Your task to perform on an android device: Add "razer blade" to the cart on ebay.com, then select checkout. Image 0: 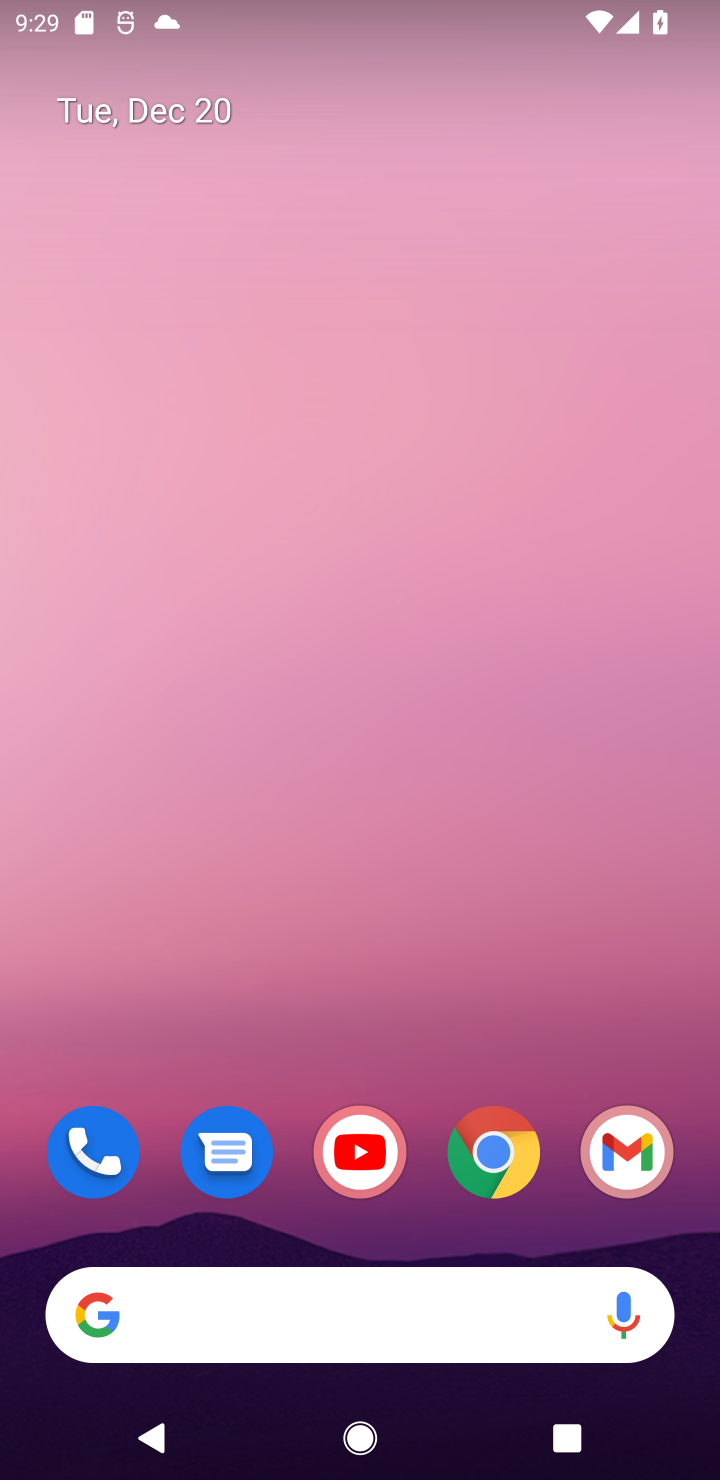
Step 0: click (468, 1193)
Your task to perform on an android device: Add "razer blade" to the cart on ebay.com, then select checkout. Image 1: 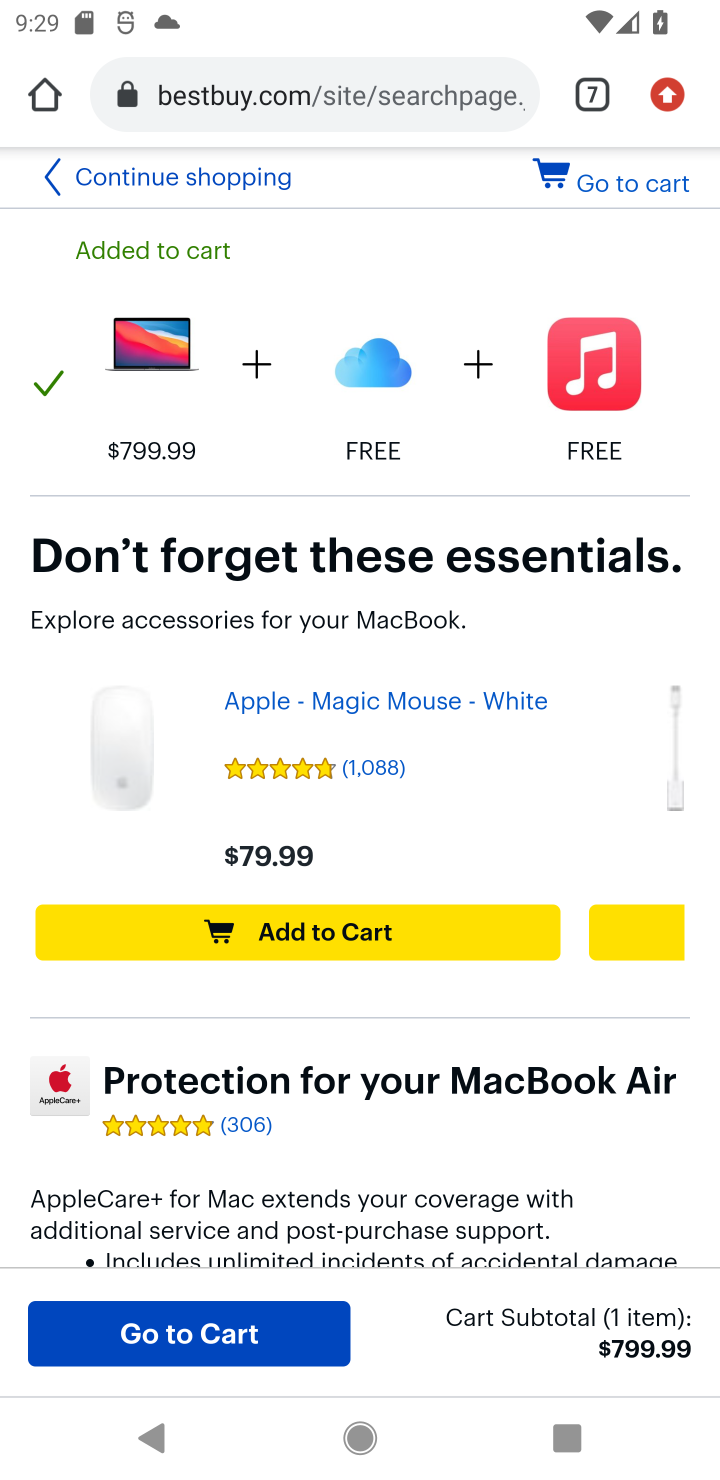
Step 1: click (593, 93)
Your task to perform on an android device: Add "razer blade" to the cart on ebay.com, then select checkout. Image 2: 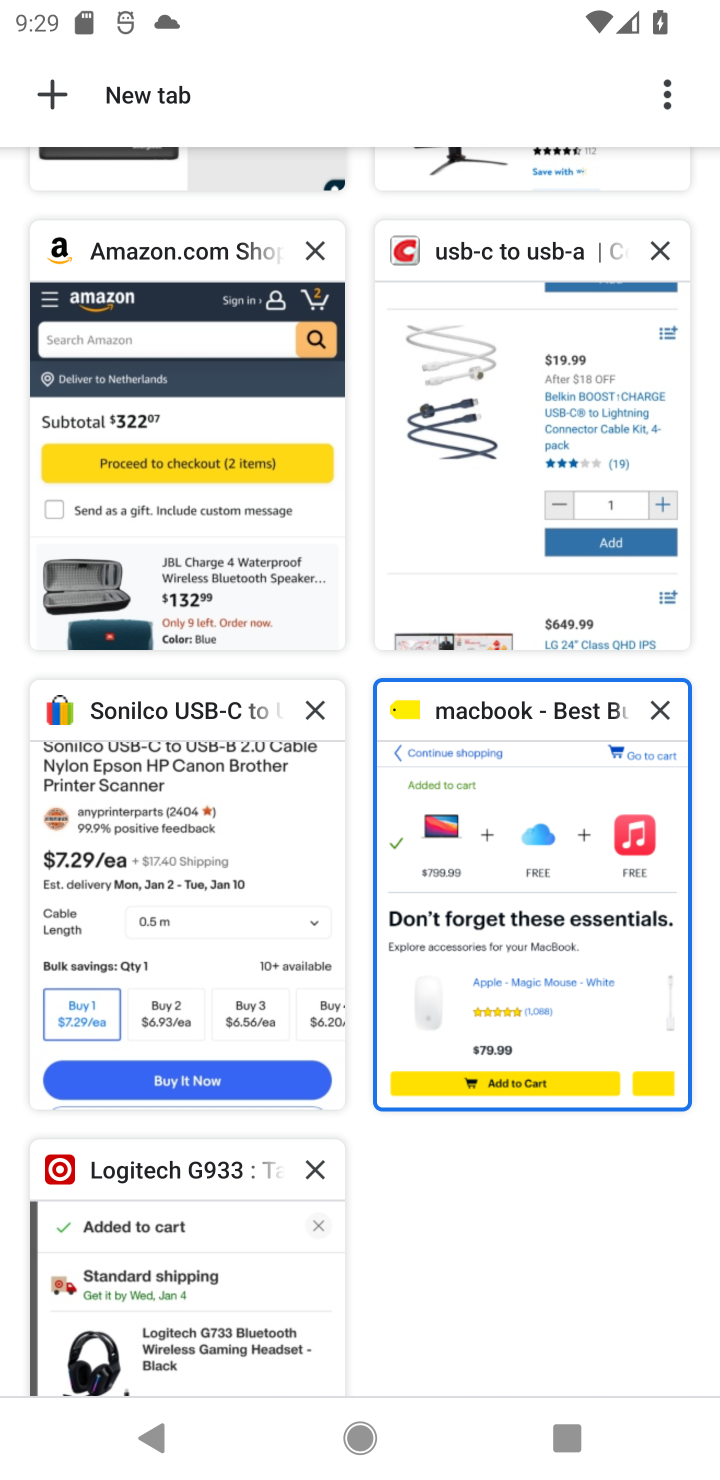
Step 2: click (151, 909)
Your task to perform on an android device: Add "razer blade" to the cart on ebay.com, then select checkout. Image 3: 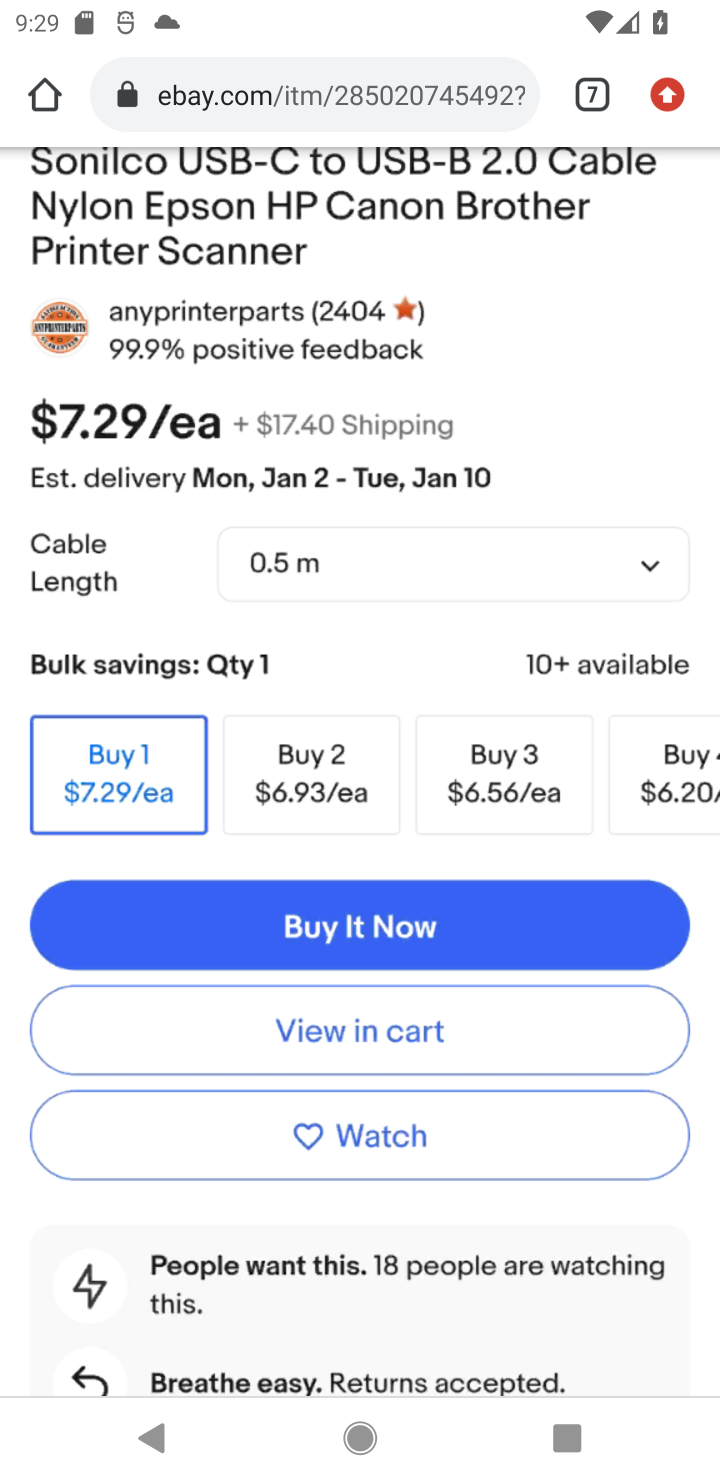
Step 3: drag from (437, 316) to (324, 1117)
Your task to perform on an android device: Add "razer blade" to the cart on ebay.com, then select checkout. Image 4: 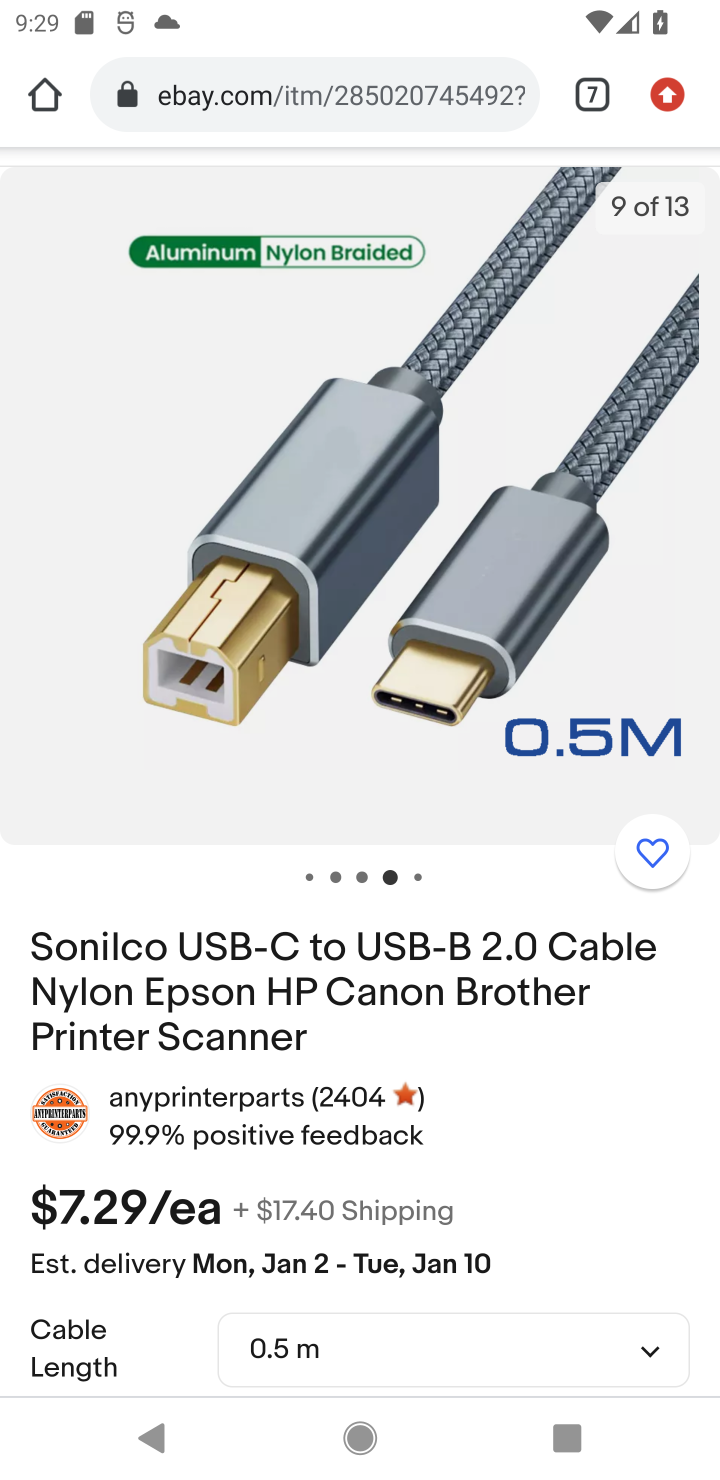
Step 4: drag from (519, 434) to (497, 826)
Your task to perform on an android device: Add "razer blade" to the cart on ebay.com, then select checkout. Image 5: 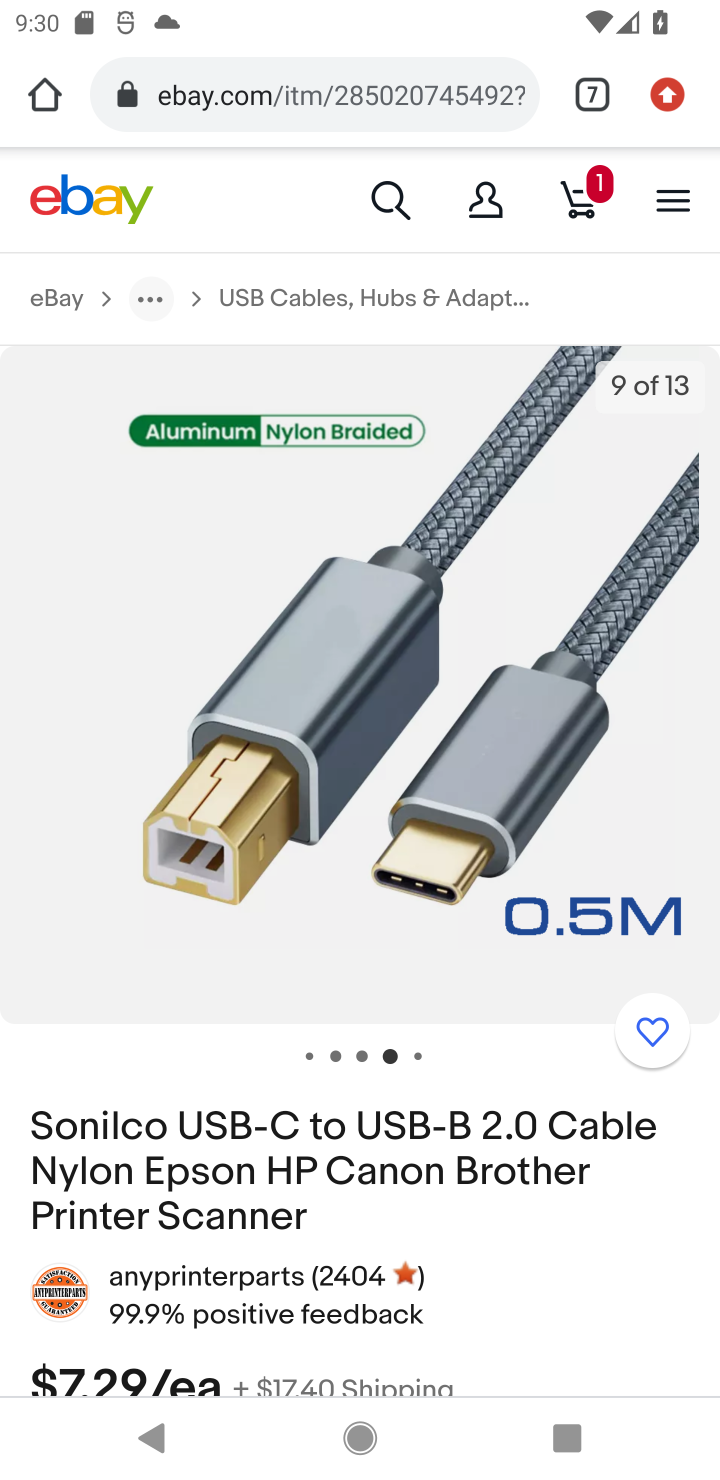
Step 5: click (392, 194)
Your task to perform on an android device: Add "razer blade" to the cart on ebay.com, then select checkout. Image 6: 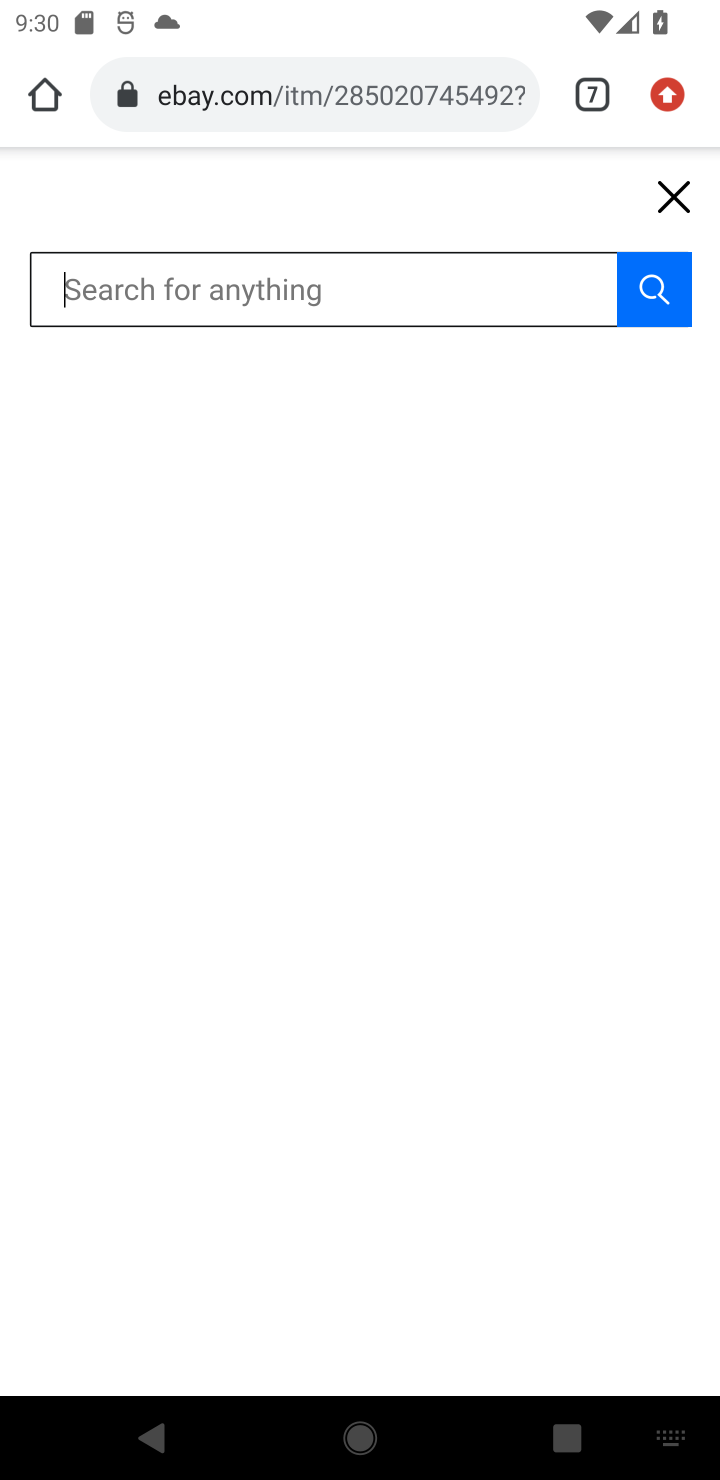
Step 6: type "razer blade"
Your task to perform on an android device: Add "razer blade" to the cart on ebay.com, then select checkout. Image 7: 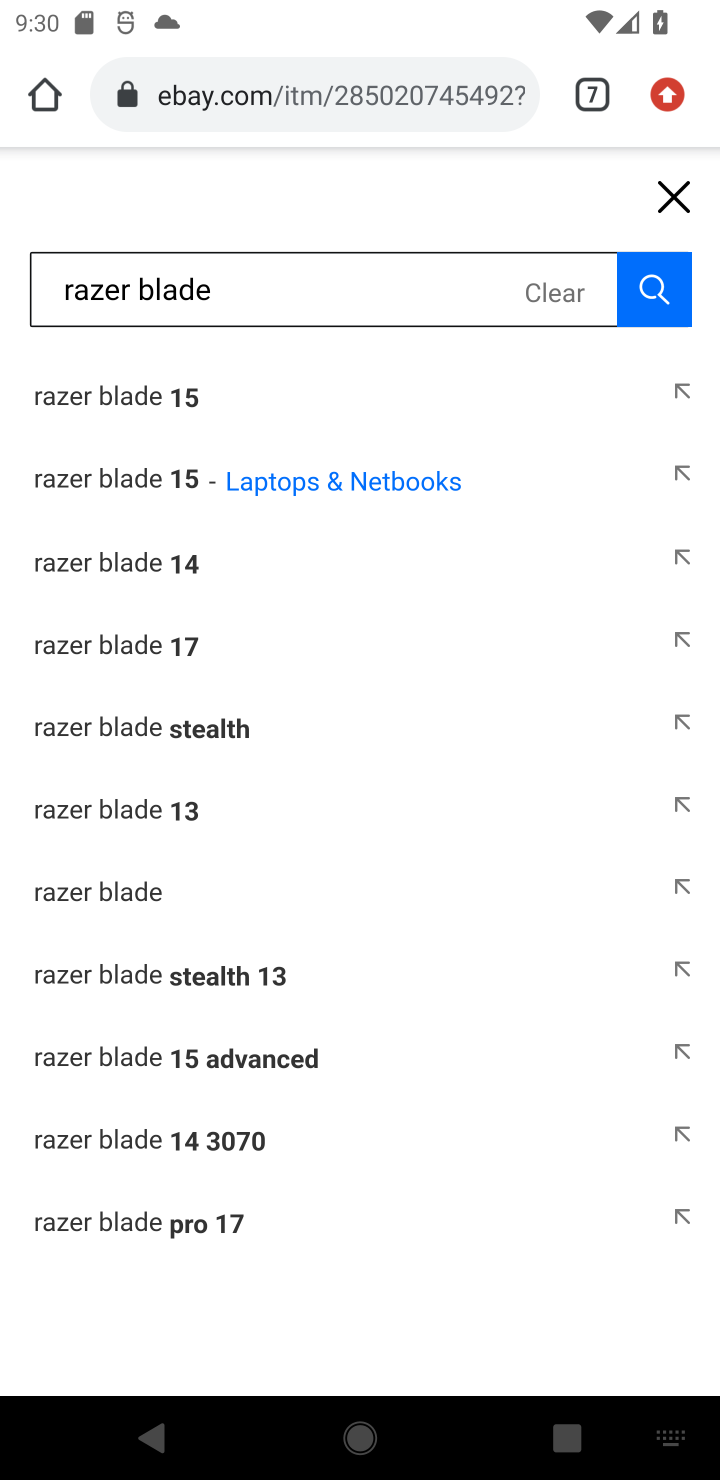
Step 7: click (171, 487)
Your task to perform on an android device: Add "razer blade" to the cart on ebay.com, then select checkout. Image 8: 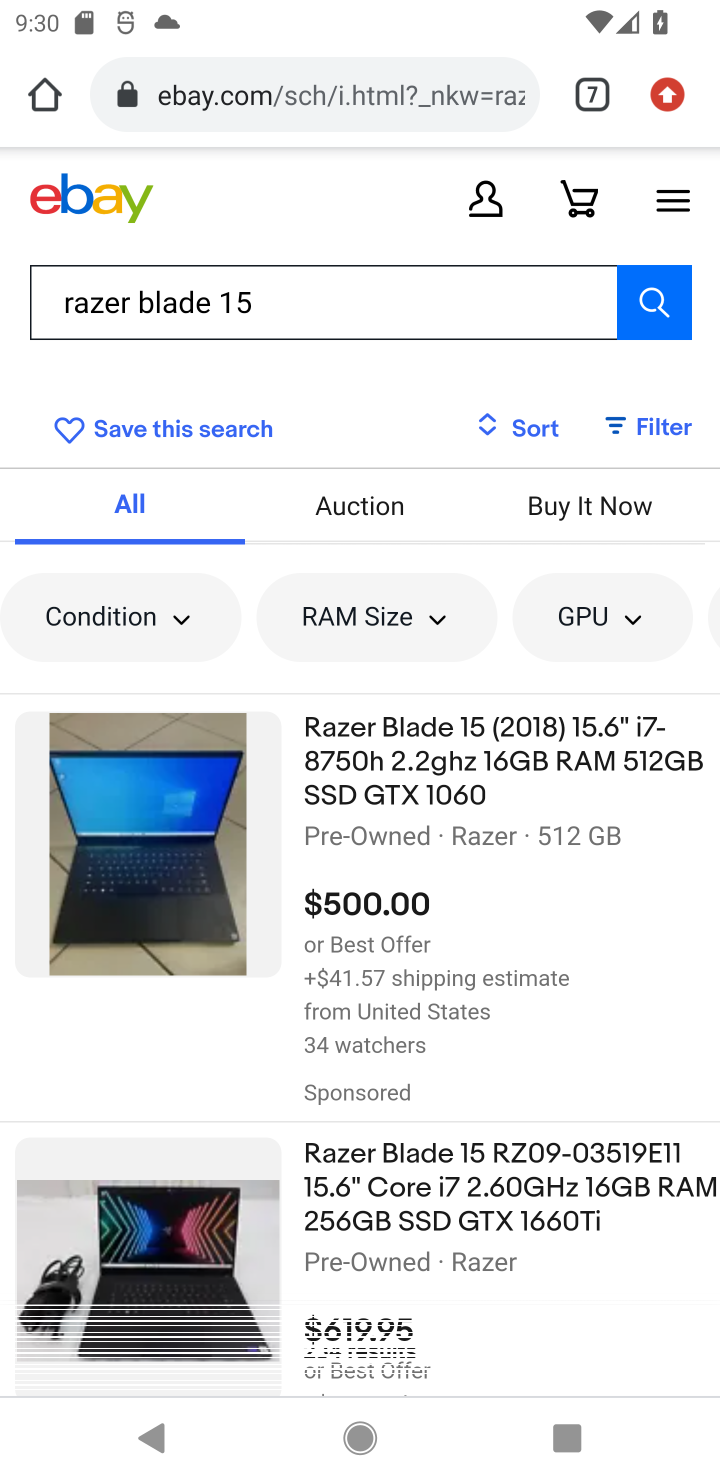
Step 8: click (424, 774)
Your task to perform on an android device: Add "razer blade" to the cart on ebay.com, then select checkout. Image 9: 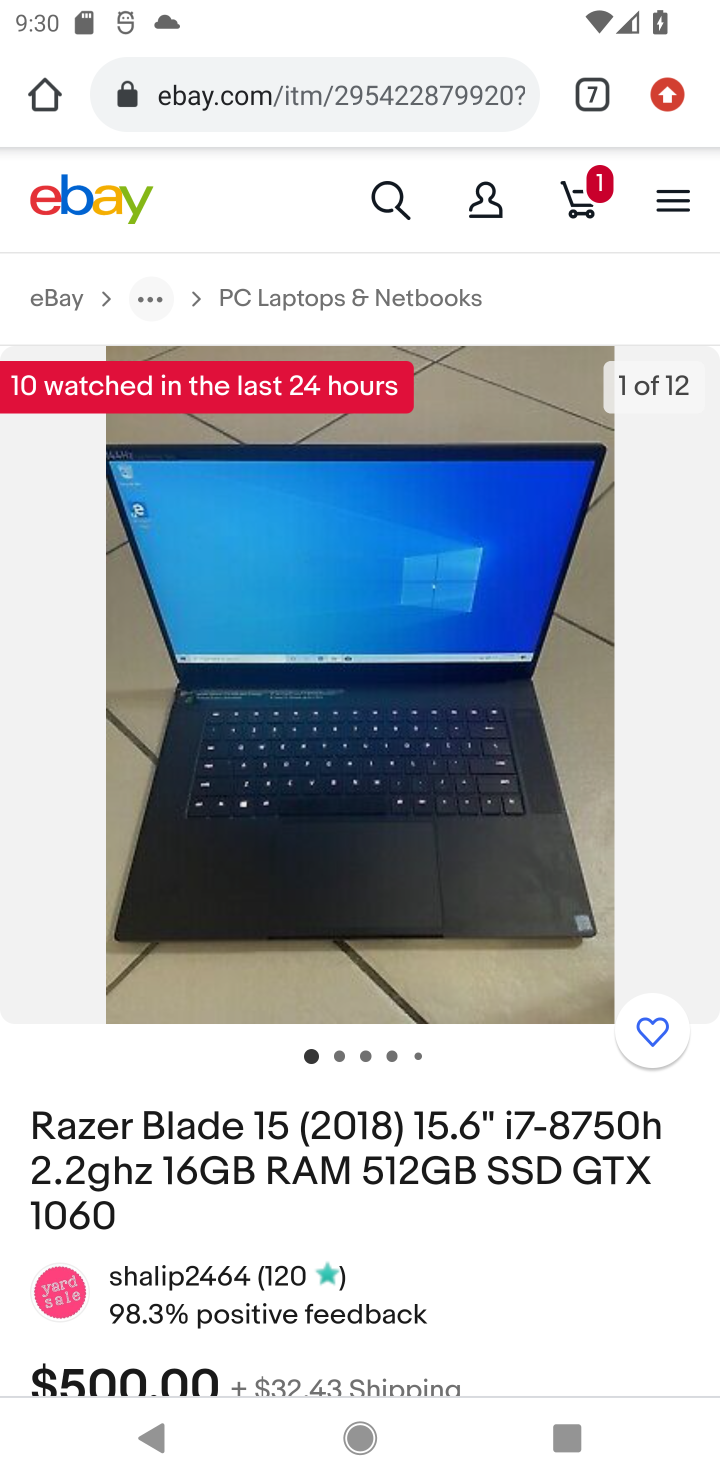
Step 9: drag from (577, 1300) to (568, 470)
Your task to perform on an android device: Add "razer blade" to the cart on ebay.com, then select checkout. Image 10: 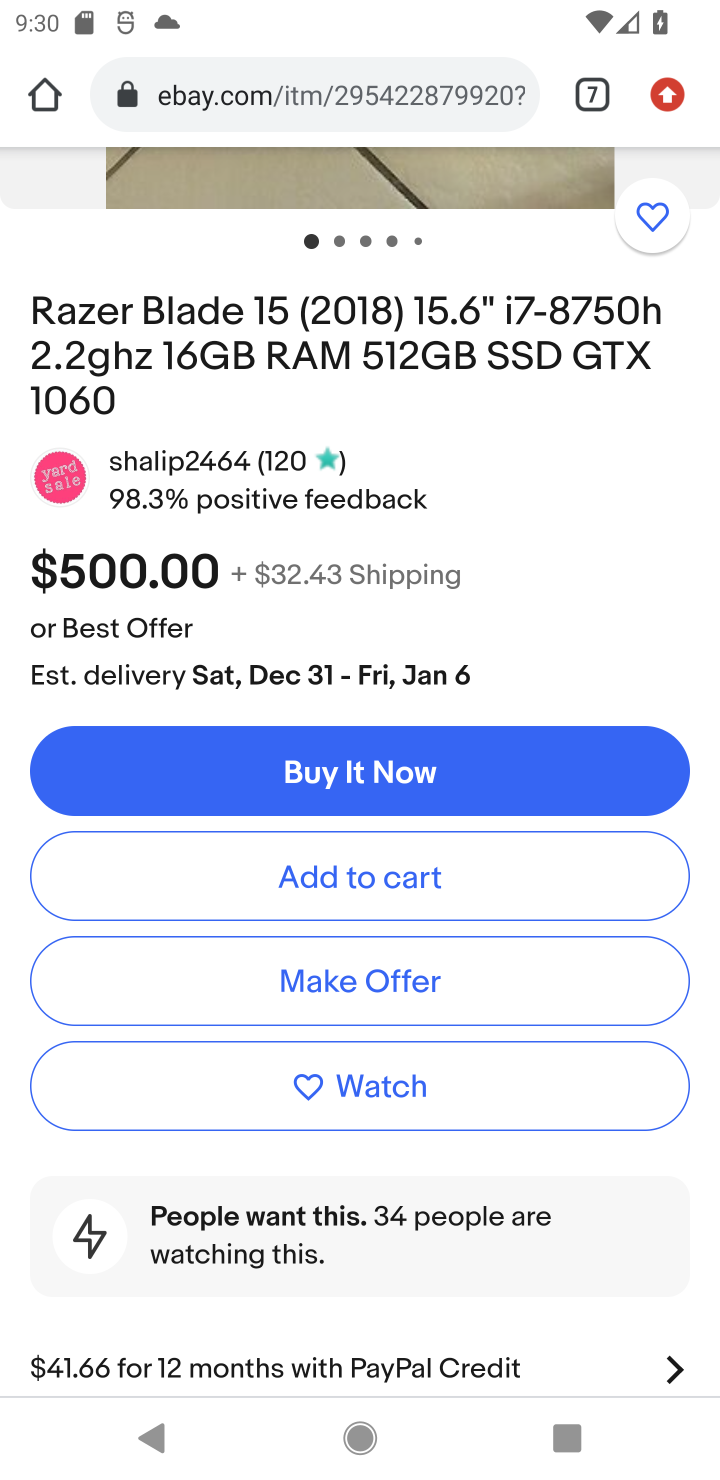
Step 10: click (420, 878)
Your task to perform on an android device: Add "razer blade" to the cart on ebay.com, then select checkout. Image 11: 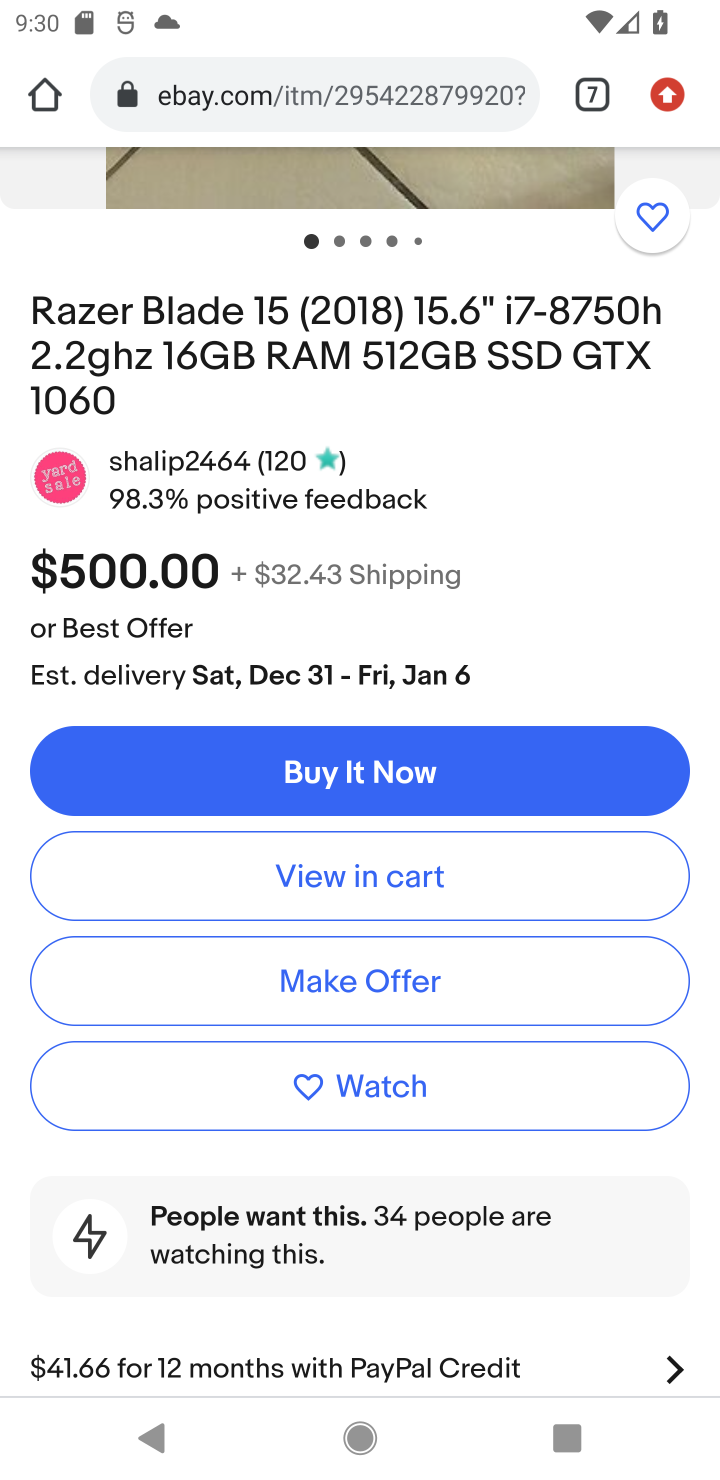
Step 11: task complete